Your task to perform on an android device: Open sound settings Image 0: 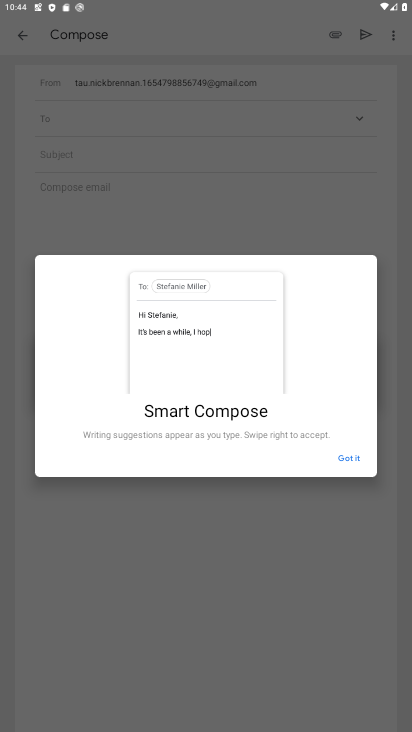
Step 0: press home button
Your task to perform on an android device: Open sound settings Image 1: 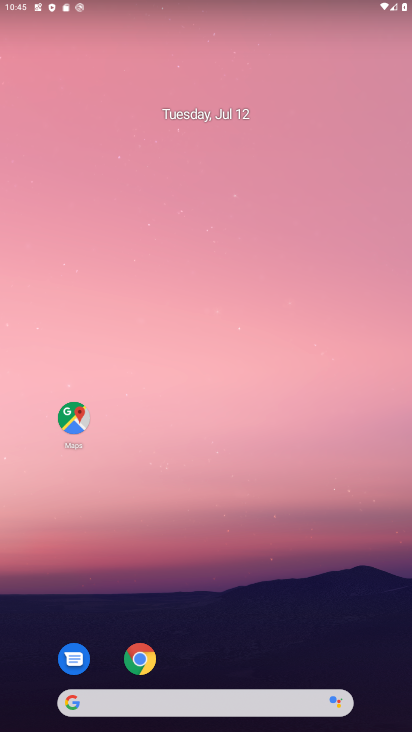
Step 1: click (252, 463)
Your task to perform on an android device: Open sound settings Image 2: 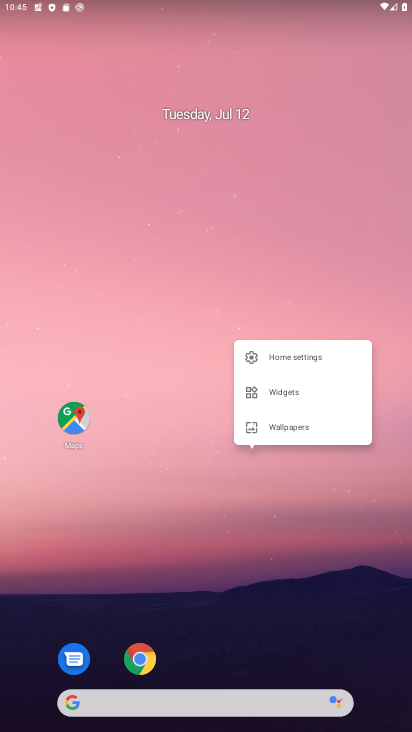
Step 2: click (376, 608)
Your task to perform on an android device: Open sound settings Image 3: 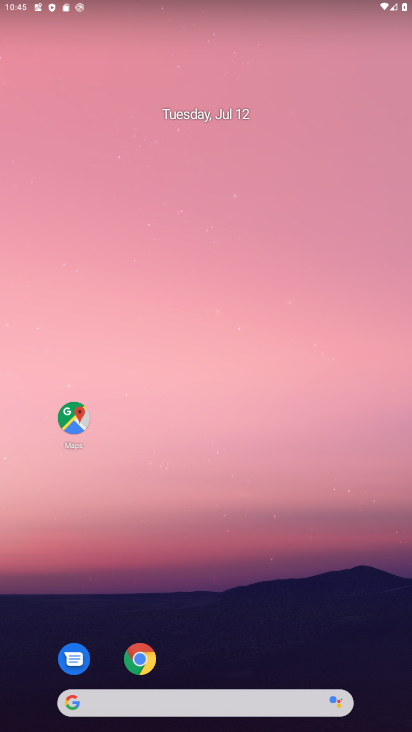
Step 3: drag from (400, 709) to (328, 134)
Your task to perform on an android device: Open sound settings Image 4: 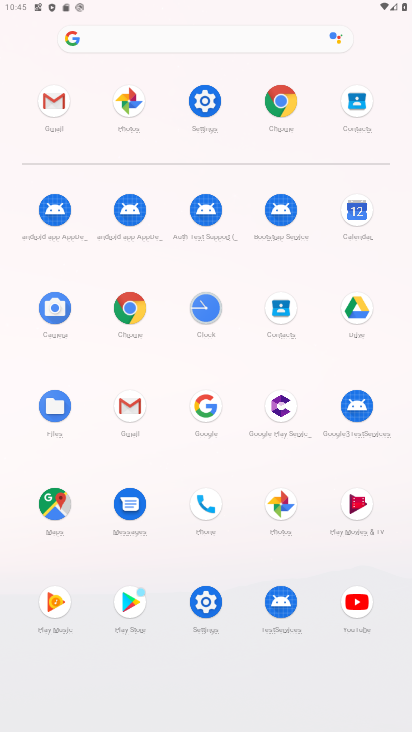
Step 4: click (206, 592)
Your task to perform on an android device: Open sound settings Image 5: 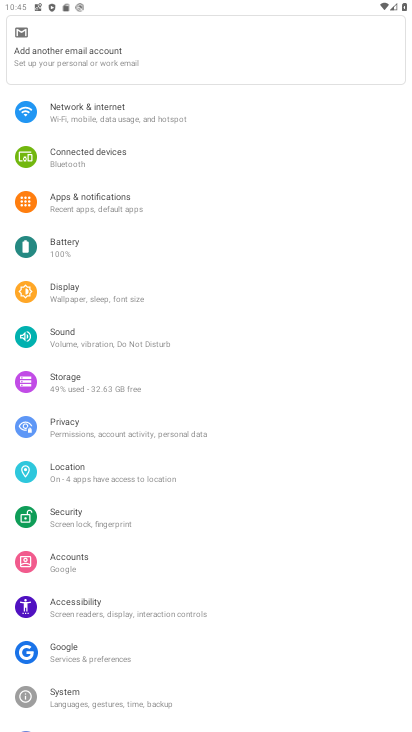
Step 5: click (61, 330)
Your task to perform on an android device: Open sound settings Image 6: 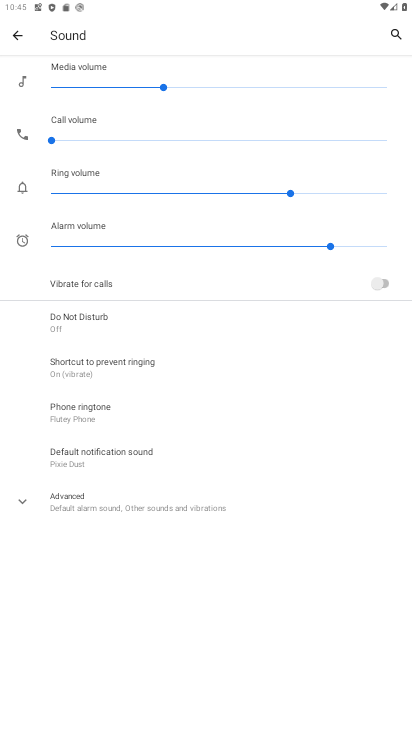
Step 6: click (34, 504)
Your task to perform on an android device: Open sound settings Image 7: 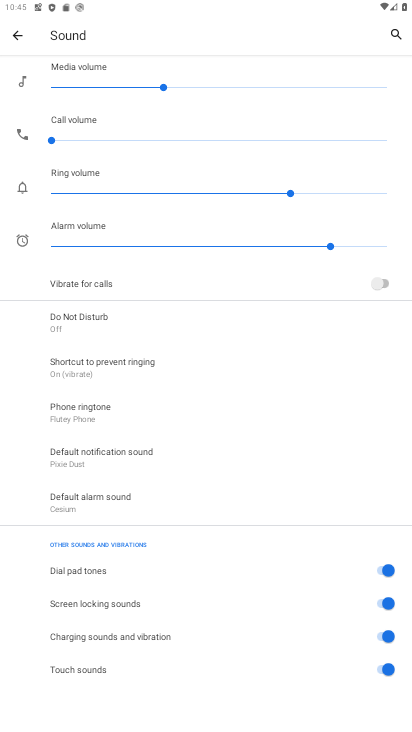
Step 7: task complete